Your task to perform on an android device: open sync settings in chrome Image 0: 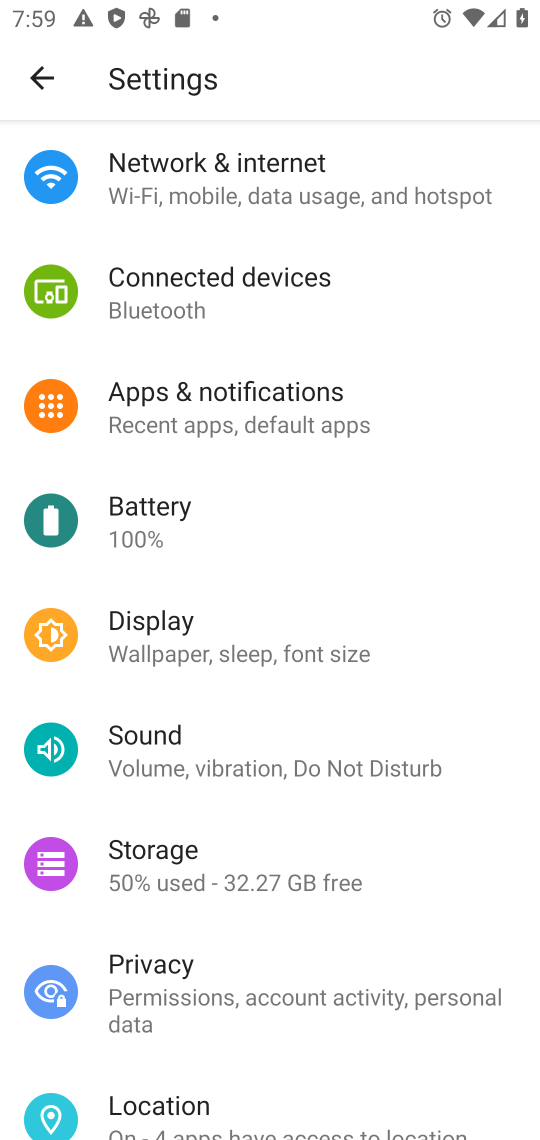
Step 0: press home button
Your task to perform on an android device: open sync settings in chrome Image 1: 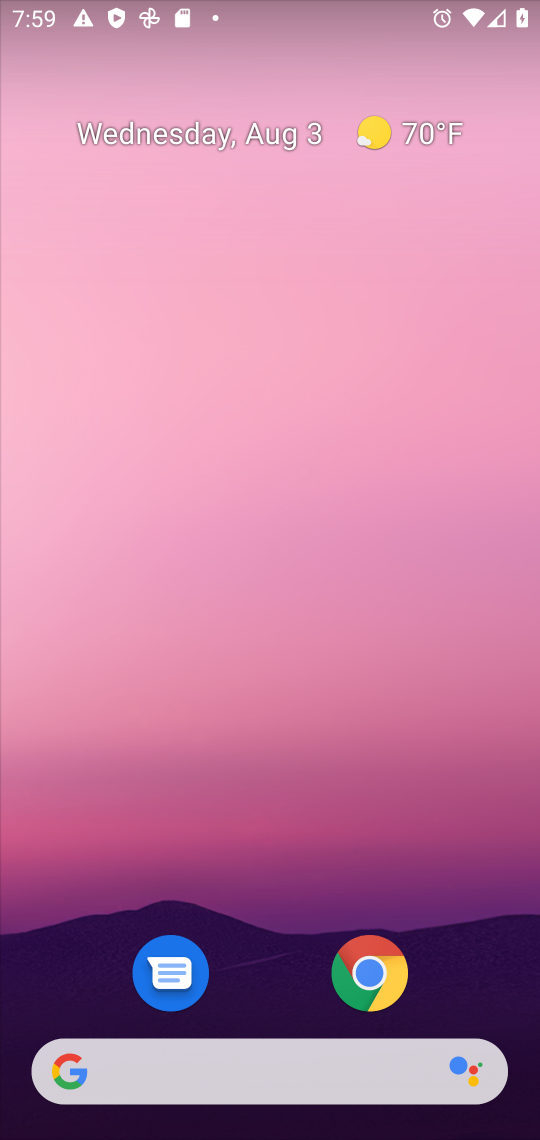
Step 1: click (362, 974)
Your task to perform on an android device: open sync settings in chrome Image 2: 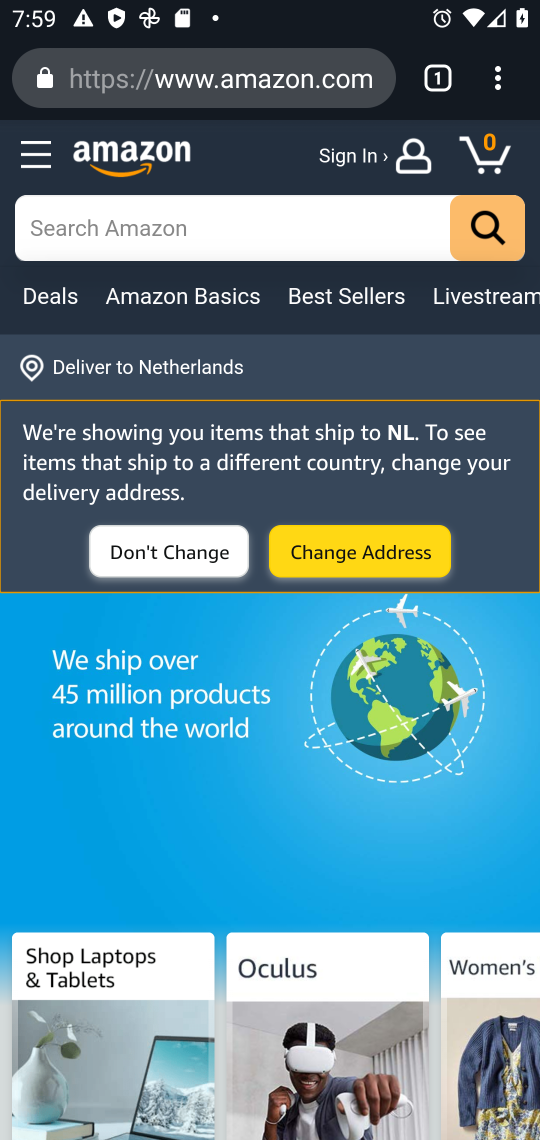
Step 2: click (505, 75)
Your task to perform on an android device: open sync settings in chrome Image 3: 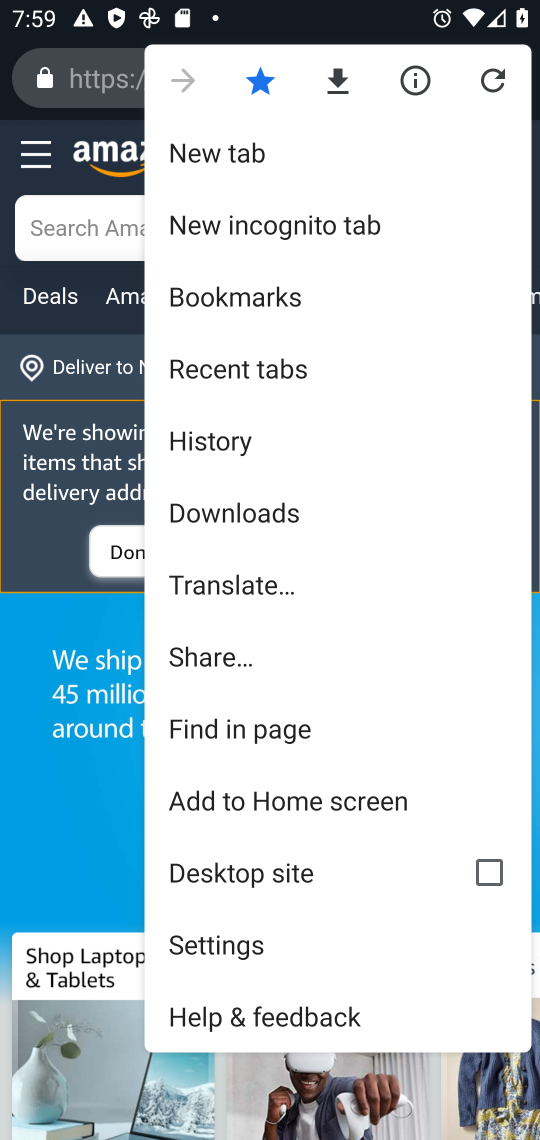
Step 3: click (195, 943)
Your task to perform on an android device: open sync settings in chrome Image 4: 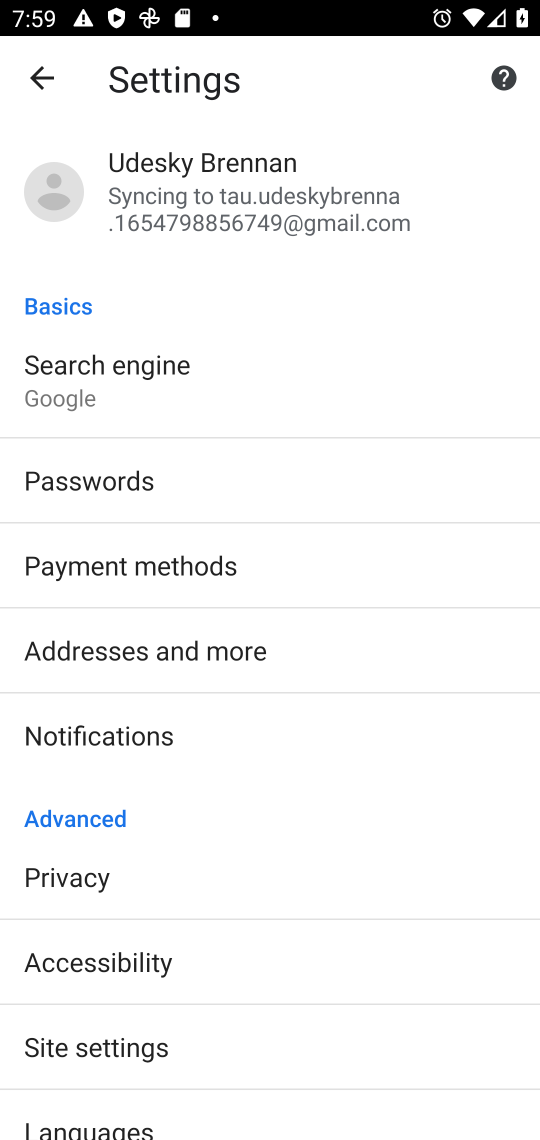
Step 4: click (155, 187)
Your task to perform on an android device: open sync settings in chrome Image 5: 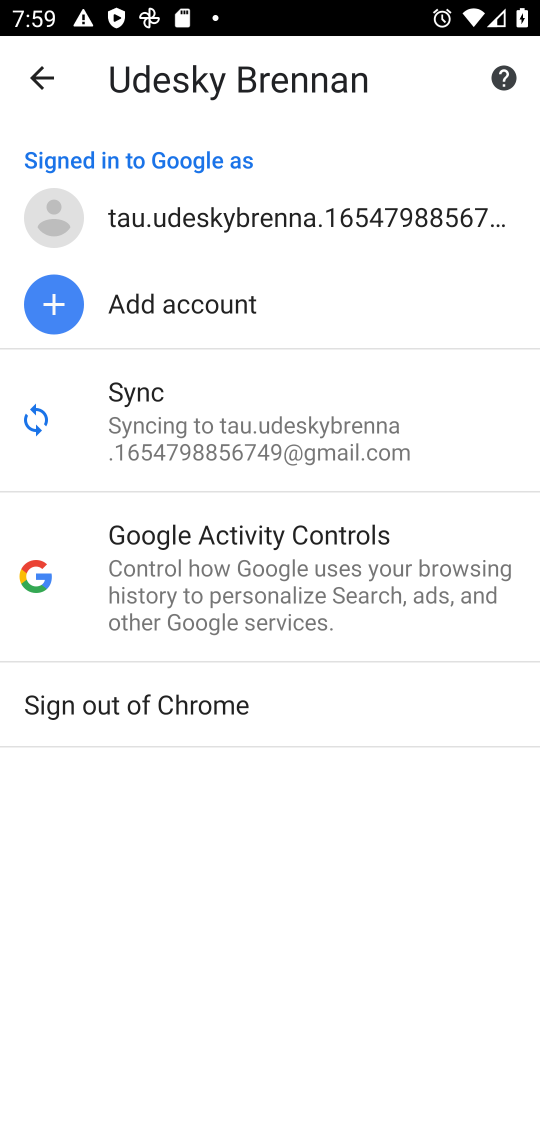
Step 5: click (162, 445)
Your task to perform on an android device: open sync settings in chrome Image 6: 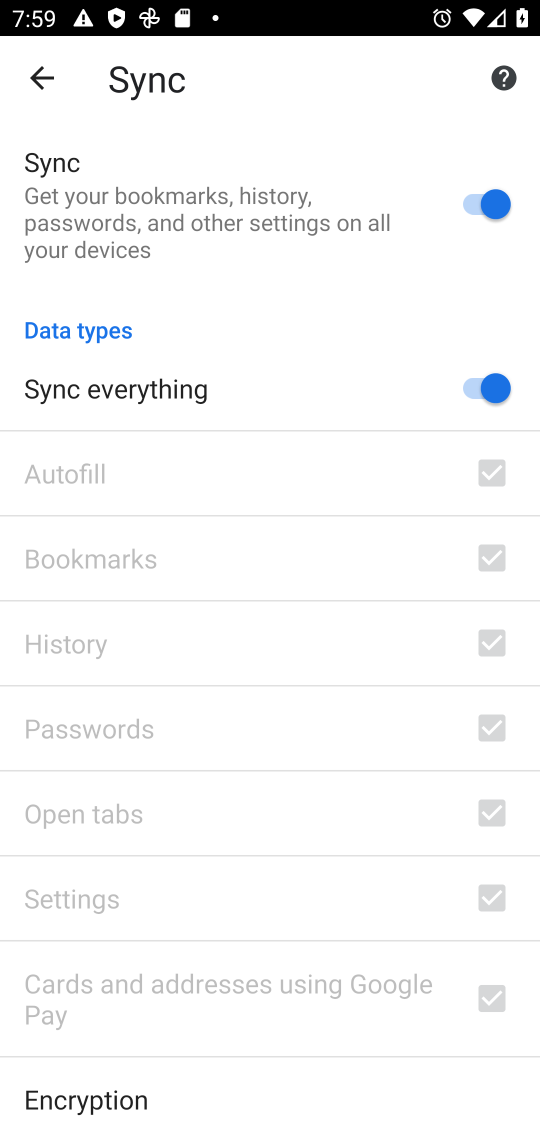
Step 6: task complete